Your task to perform on an android device: Search for Italian restaurants on Maps Image 0: 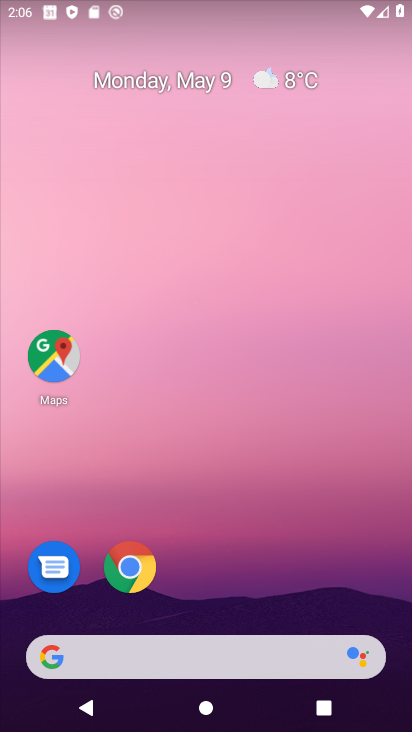
Step 0: drag from (297, 596) to (298, 387)
Your task to perform on an android device: Search for Italian restaurants on Maps Image 1: 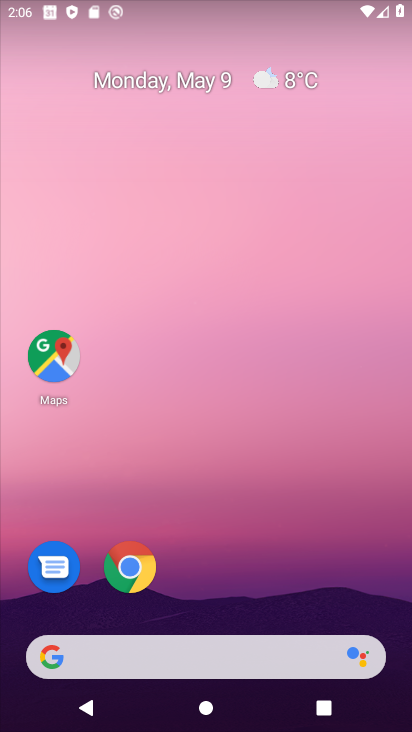
Step 1: drag from (244, 560) to (282, 279)
Your task to perform on an android device: Search for Italian restaurants on Maps Image 2: 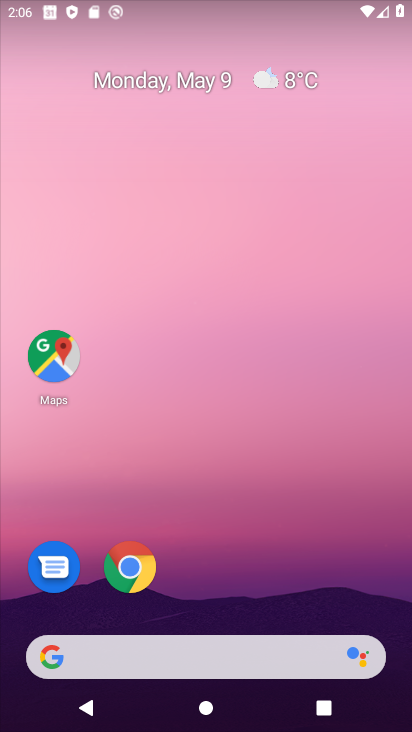
Step 2: drag from (232, 610) to (285, 133)
Your task to perform on an android device: Search for Italian restaurants on Maps Image 3: 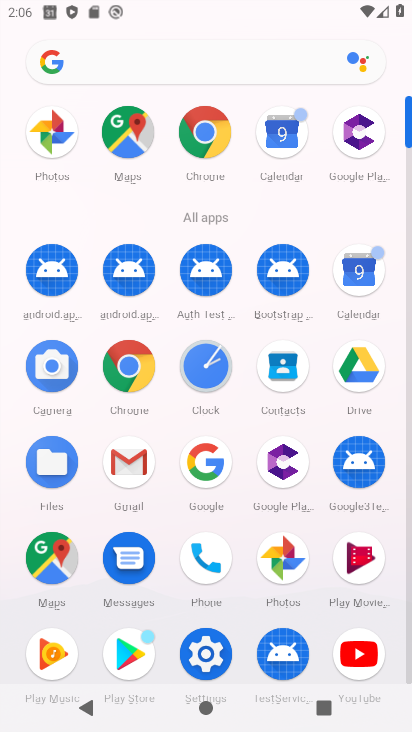
Step 3: click (55, 539)
Your task to perform on an android device: Search for Italian restaurants on Maps Image 4: 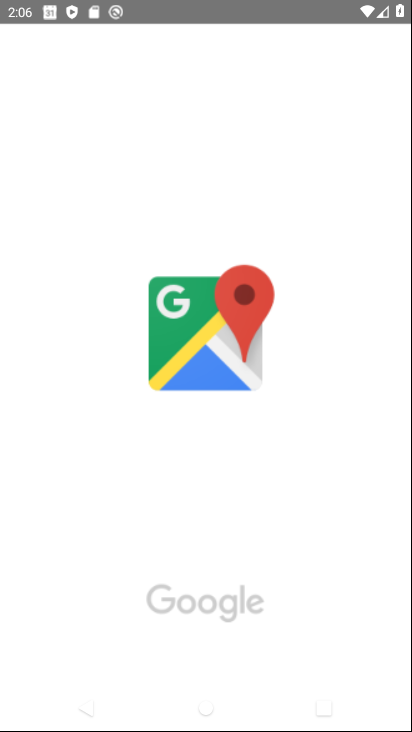
Step 4: press home button
Your task to perform on an android device: Search for Italian restaurants on Maps Image 5: 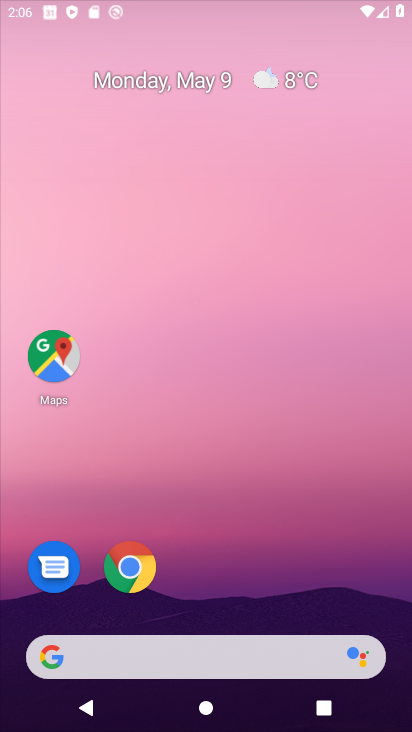
Step 5: drag from (292, 288) to (286, 247)
Your task to perform on an android device: Search for Italian restaurants on Maps Image 6: 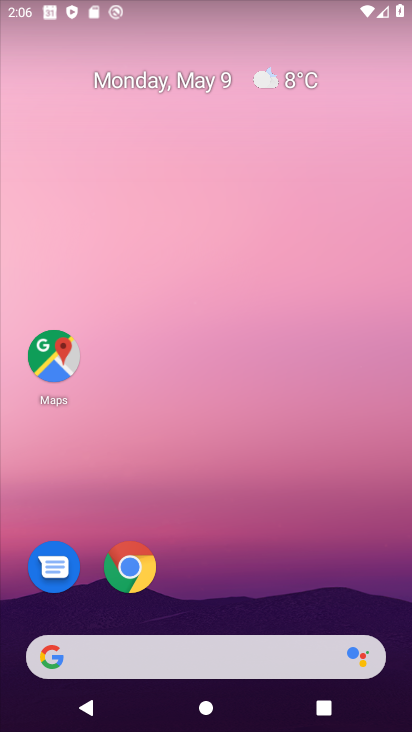
Step 6: drag from (317, 605) to (336, 232)
Your task to perform on an android device: Search for Italian restaurants on Maps Image 7: 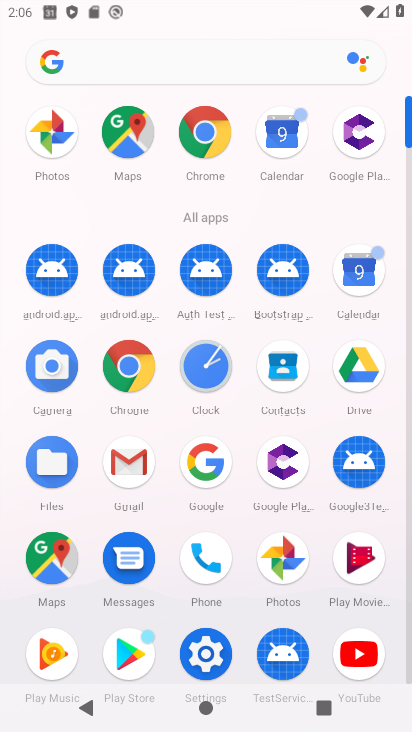
Step 7: click (55, 542)
Your task to perform on an android device: Search for Italian restaurants on Maps Image 8: 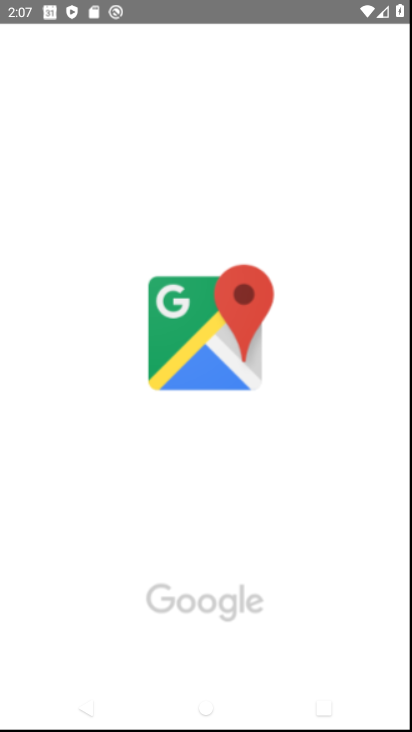
Step 8: task complete